Your task to perform on an android device: change the clock display to analog Image 0: 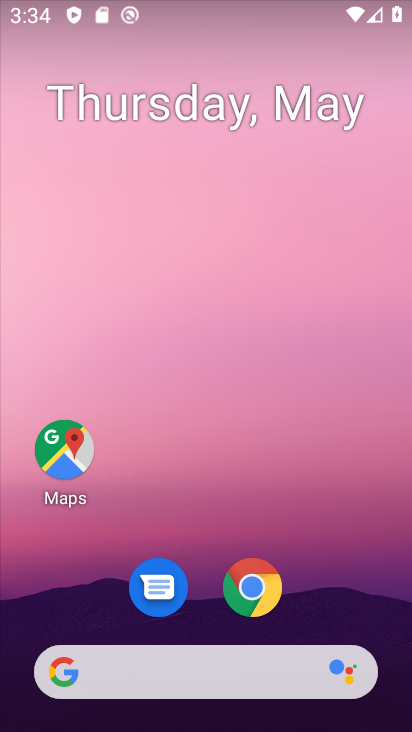
Step 0: drag from (320, 575) to (253, 66)
Your task to perform on an android device: change the clock display to analog Image 1: 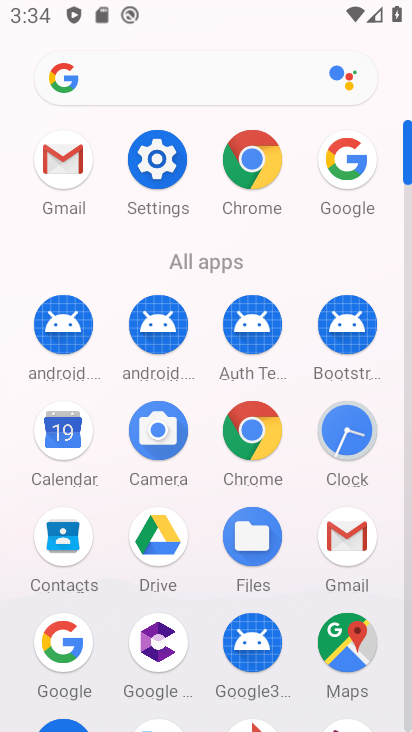
Step 1: drag from (13, 549) to (21, 254)
Your task to perform on an android device: change the clock display to analog Image 2: 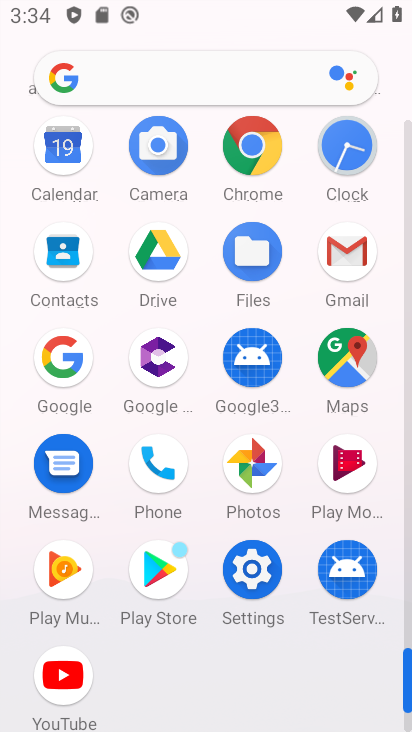
Step 2: click (347, 141)
Your task to perform on an android device: change the clock display to analog Image 3: 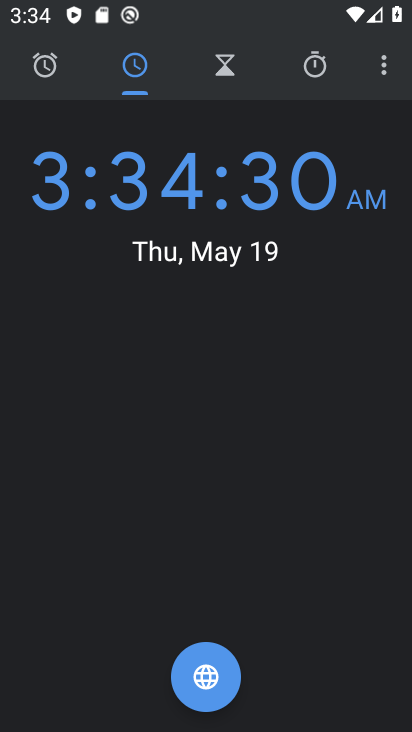
Step 3: drag from (382, 63) to (312, 123)
Your task to perform on an android device: change the clock display to analog Image 4: 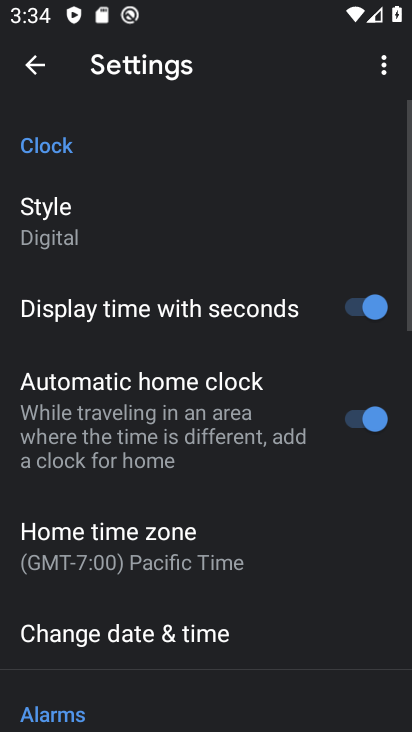
Step 4: click (126, 215)
Your task to perform on an android device: change the clock display to analog Image 5: 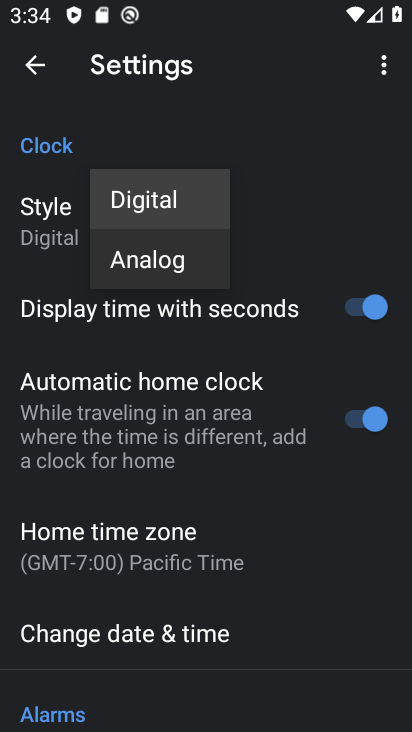
Step 5: click (150, 263)
Your task to perform on an android device: change the clock display to analog Image 6: 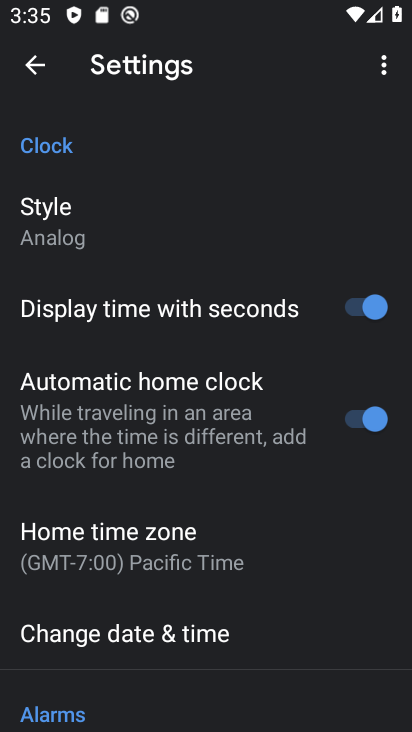
Step 6: task complete